Your task to perform on an android device: See recent photos Image 0: 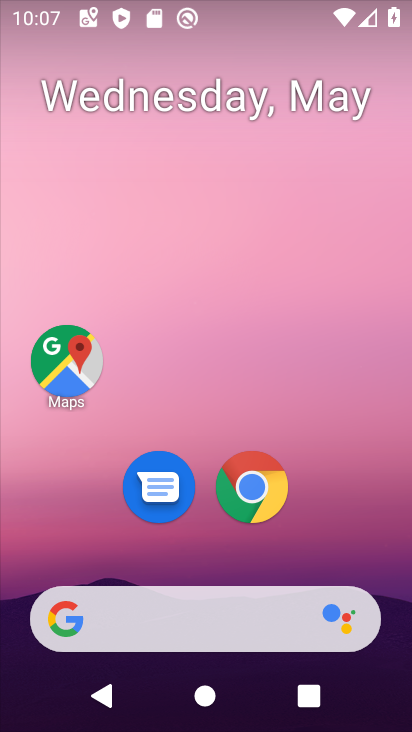
Step 0: drag from (189, 576) to (134, 97)
Your task to perform on an android device: See recent photos Image 1: 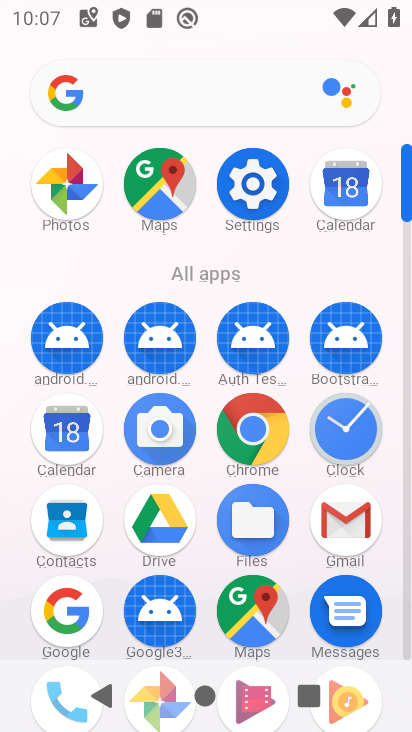
Step 1: drag from (196, 563) to (155, 100)
Your task to perform on an android device: See recent photos Image 2: 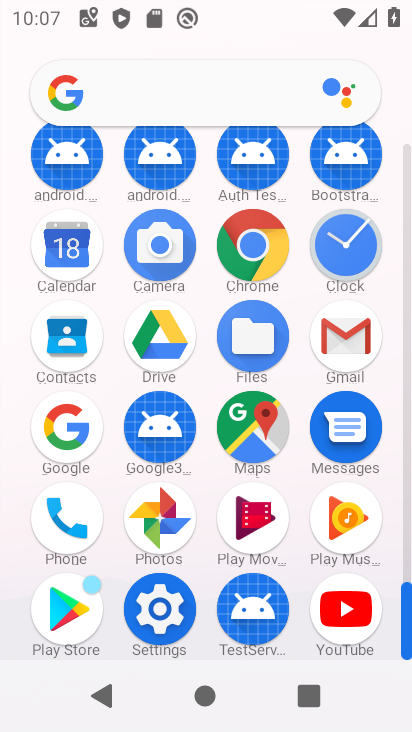
Step 2: click (164, 545)
Your task to perform on an android device: See recent photos Image 3: 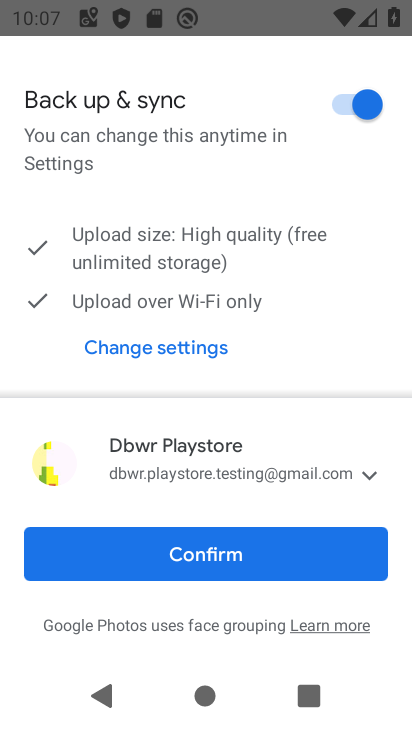
Step 3: click (154, 549)
Your task to perform on an android device: See recent photos Image 4: 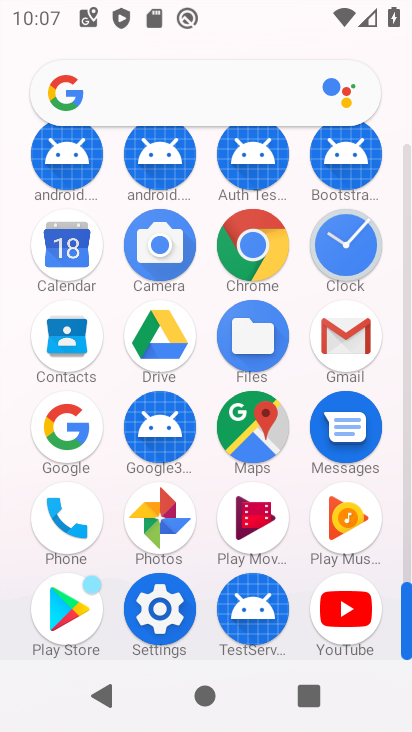
Step 4: click (155, 536)
Your task to perform on an android device: See recent photos Image 5: 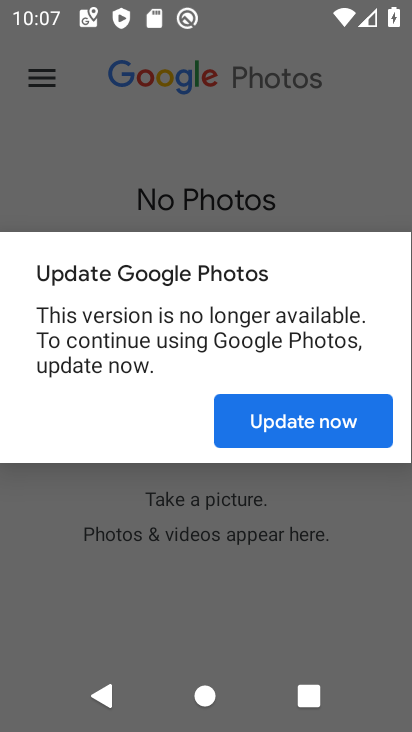
Step 5: click (247, 411)
Your task to perform on an android device: See recent photos Image 6: 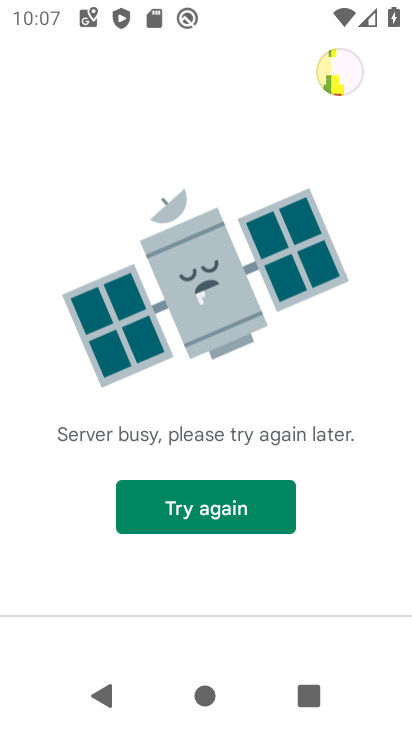
Step 6: click (181, 502)
Your task to perform on an android device: See recent photos Image 7: 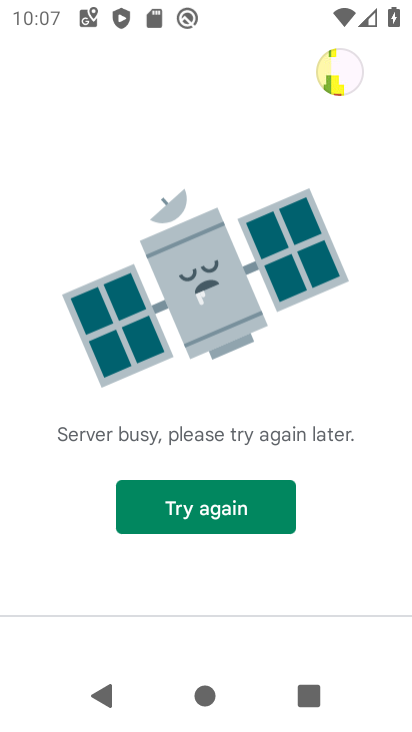
Step 7: click (207, 518)
Your task to perform on an android device: See recent photos Image 8: 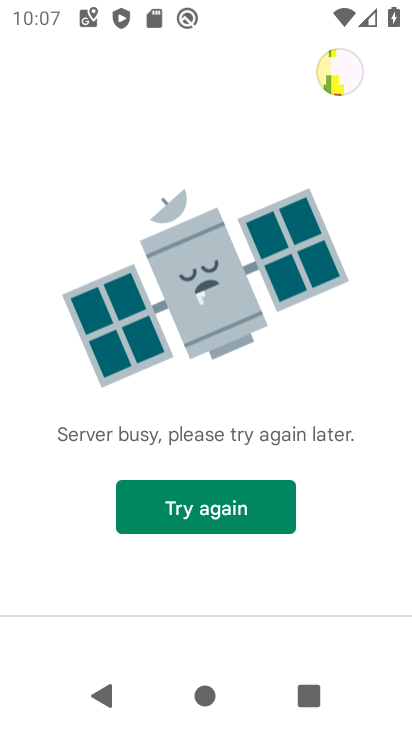
Step 8: click (240, 502)
Your task to perform on an android device: See recent photos Image 9: 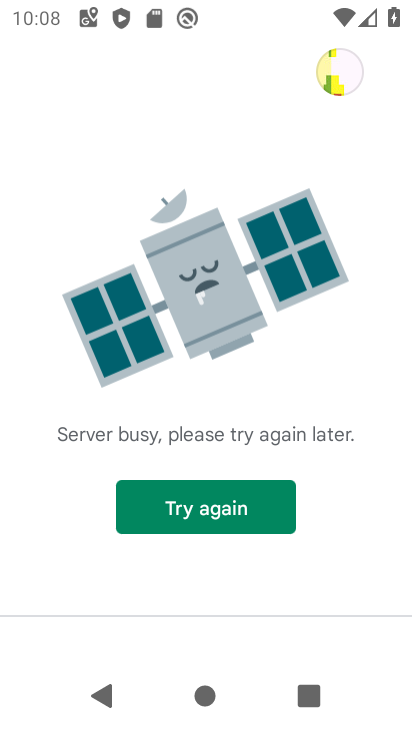
Step 9: click (239, 502)
Your task to perform on an android device: See recent photos Image 10: 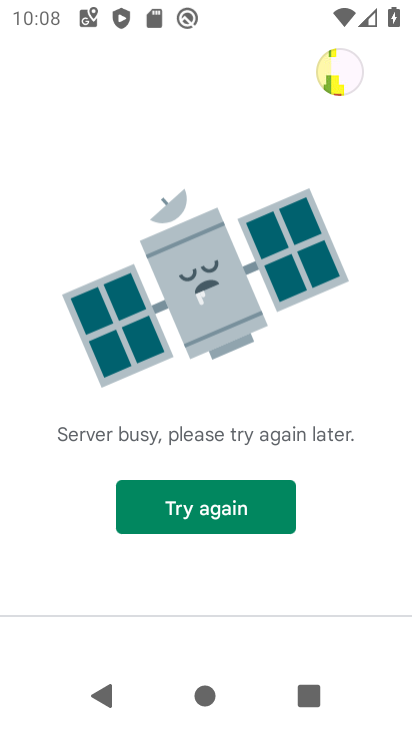
Step 10: task complete